Your task to perform on an android device: Go to Amazon Image 0: 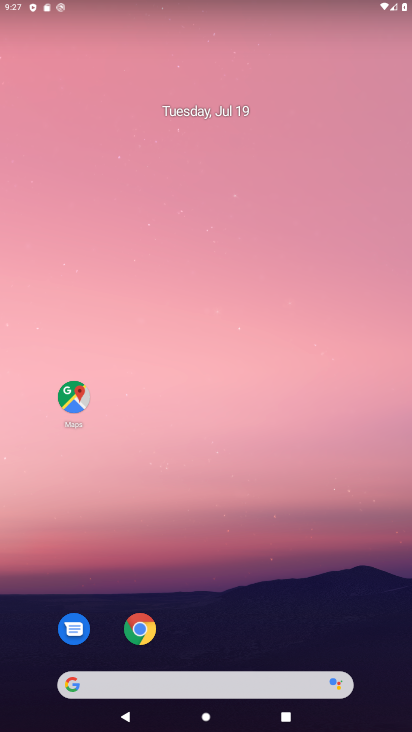
Step 0: press home button
Your task to perform on an android device: Go to Amazon Image 1: 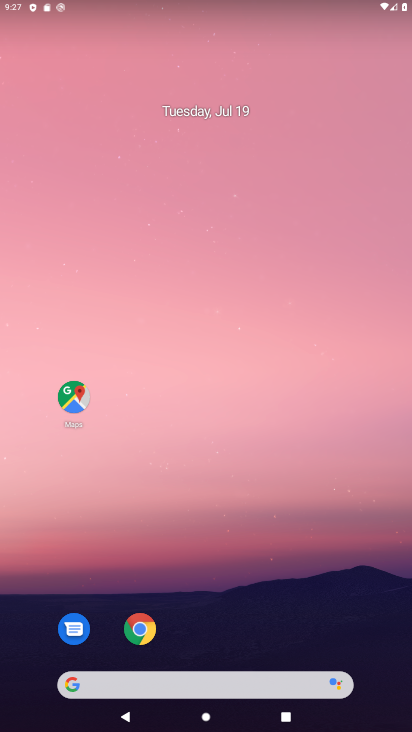
Step 1: click (73, 680)
Your task to perform on an android device: Go to Amazon Image 2: 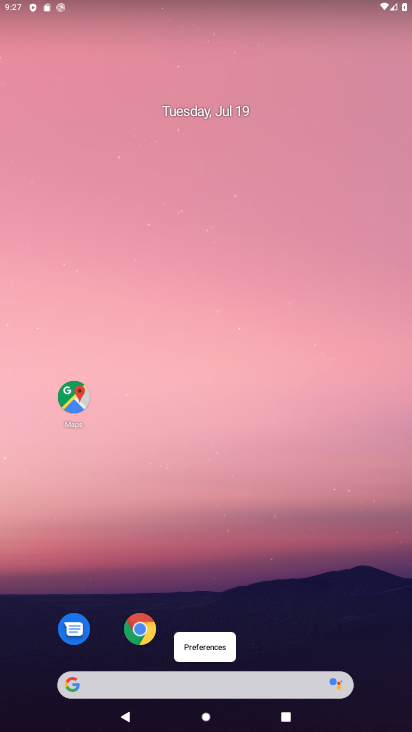
Step 2: click (73, 684)
Your task to perform on an android device: Go to Amazon Image 3: 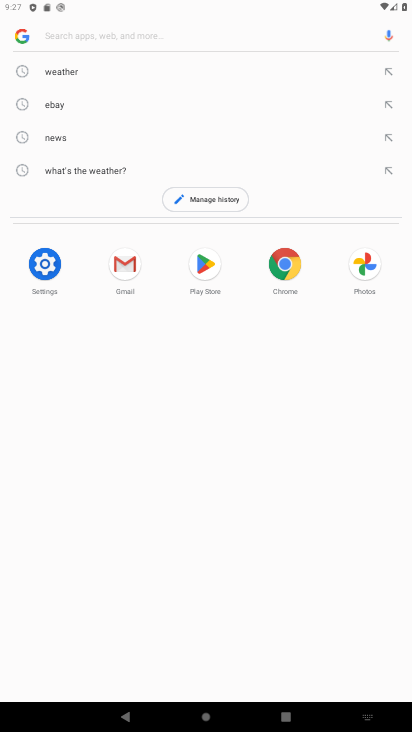
Step 3: type "Amazon"
Your task to perform on an android device: Go to Amazon Image 4: 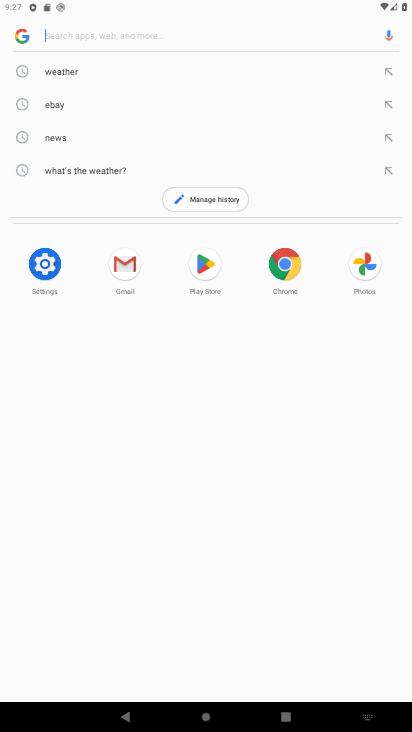
Step 4: click (74, 20)
Your task to perform on an android device: Go to Amazon Image 5: 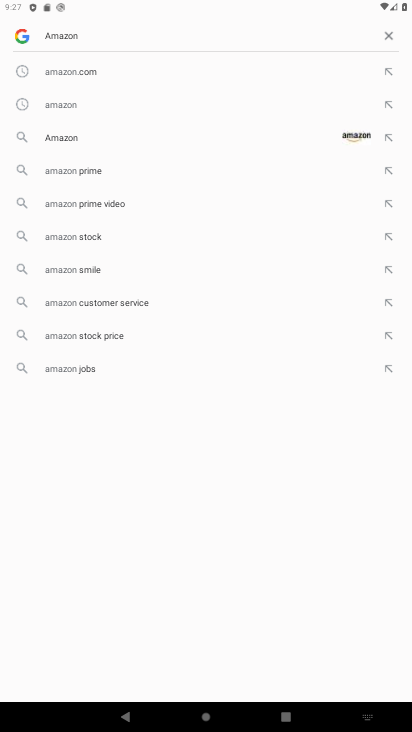
Step 5: click (358, 133)
Your task to perform on an android device: Go to Amazon Image 6: 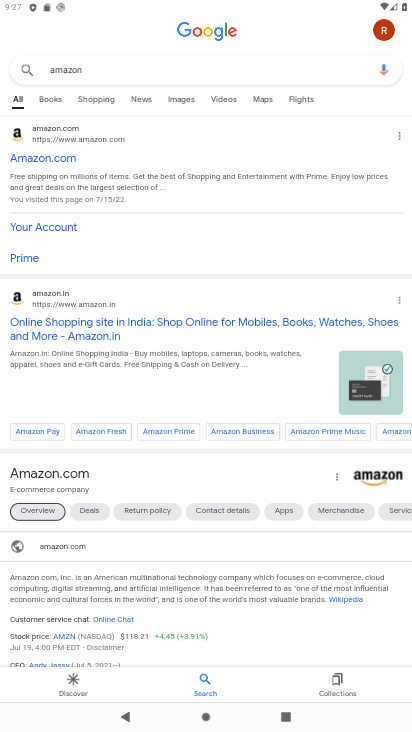
Step 6: click (25, 154)
Your task to perform on an android device: Go to Amazon Image 7: 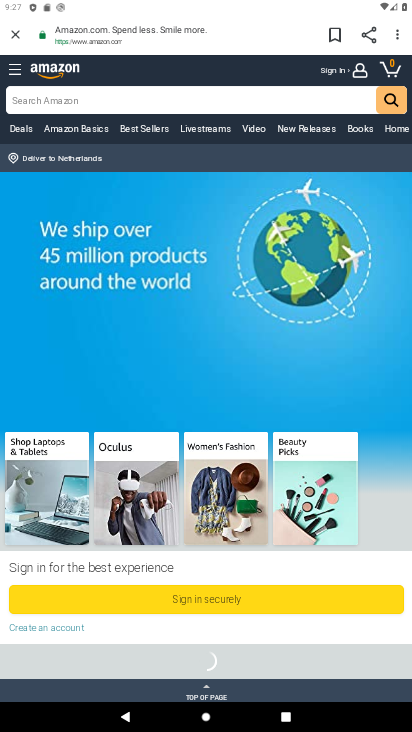
Step 7: task complete